Your task to perform on an android device: turn off smart reply in the gmail app Image 0: 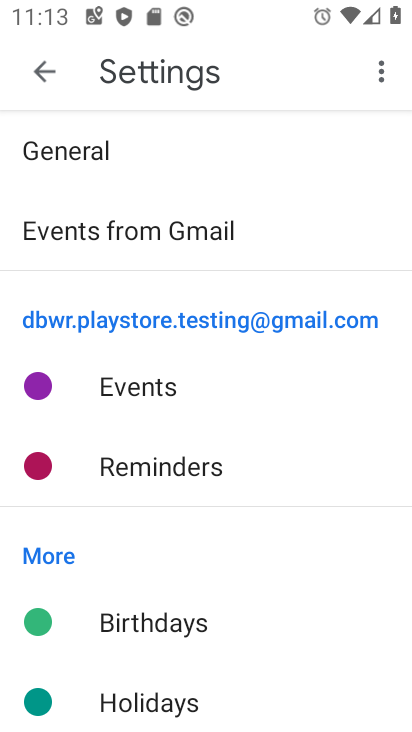
Step 0: press back button
Your task to perform on an android device: turn off smart reply in the gmail app Image 1: 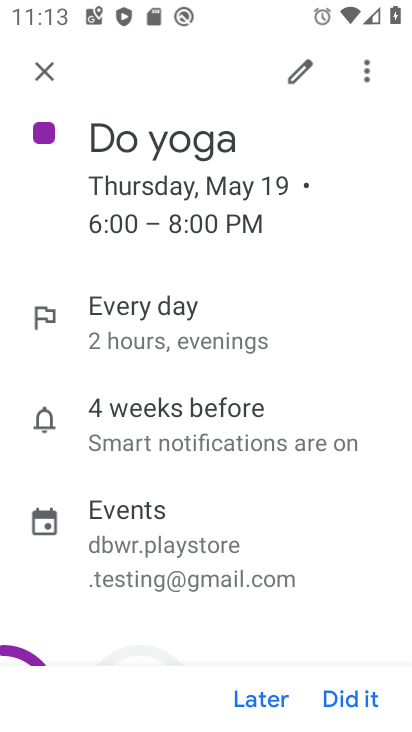
Step 1: click (243, 706)
Your task to perform on an android device: turn off smart reply in the gmail app Image 2: 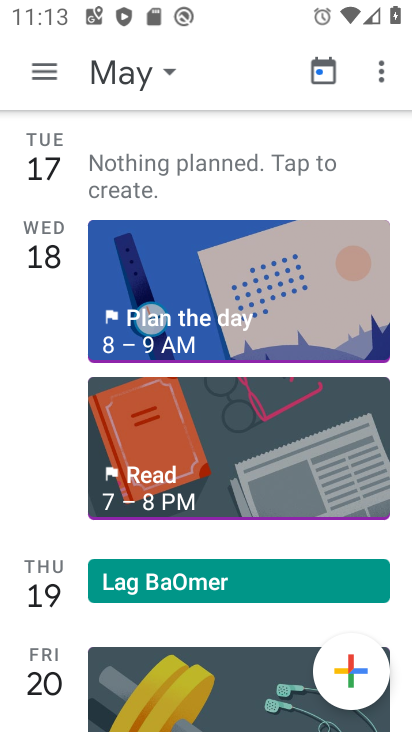
Step 2: press home button
Your task to perform on an android device: turn off smart reply in the gmail app Image 3: 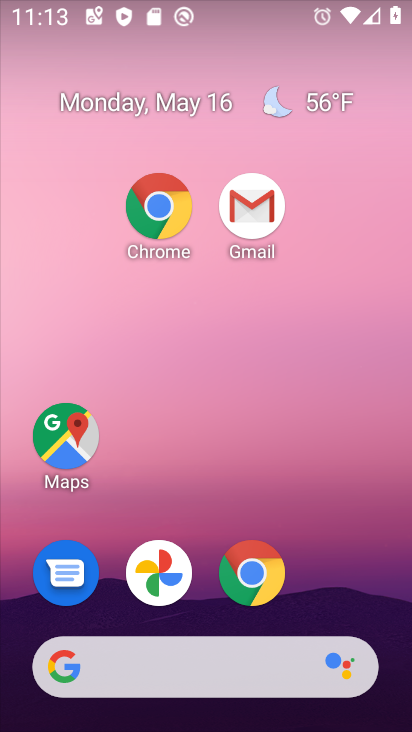
Step 3: drag from (219, 490) to (81, 91)
Your task to perform on an android device: turn off smart reply in the gmail app Image 4: 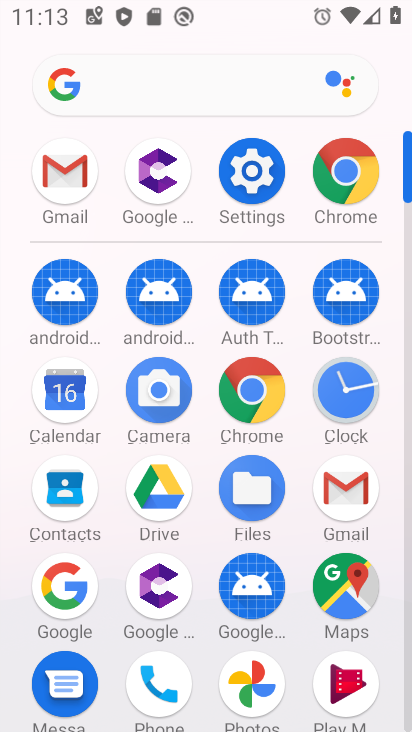
Step 4: click (352, 496)
Your task to perform on an android device: turn off smart reply in the gmail app Image 5: 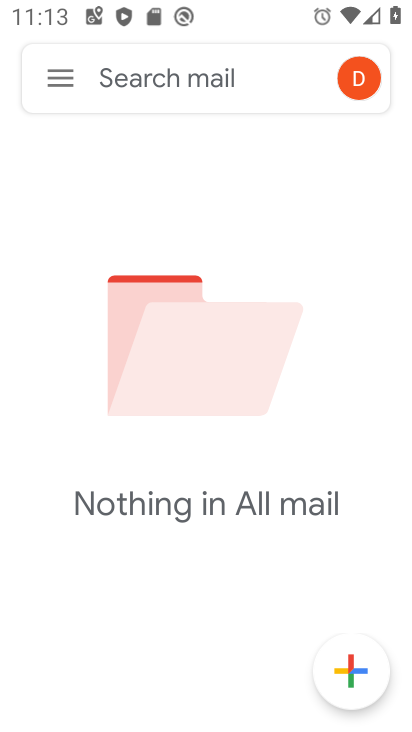
Step 5: click (71, 78)
Your task to perform on an android device: turn off smart reply in the gmail app Image 6: 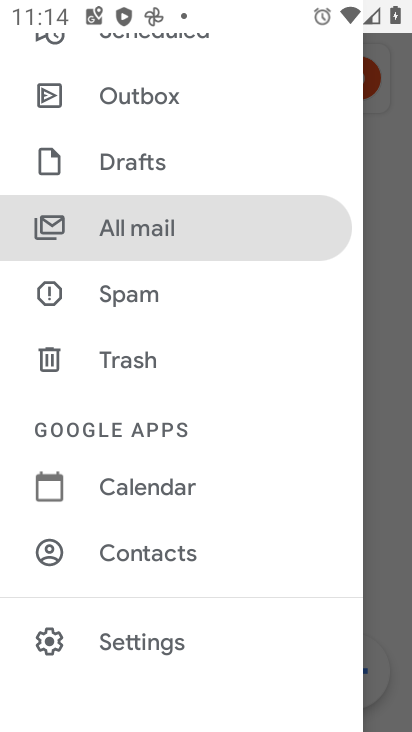
Step 6: click (144, 640)
Your task to perform on an android device: turn off smart reply in the gmail app Image 7: 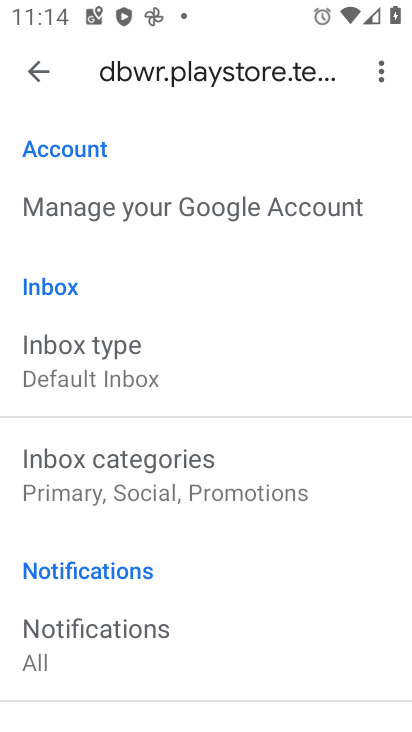
Step 7: drag from (164, 607) to (164, 166)
Your task to perform on an android device: turn off smart reply in the gmail app Image 8: 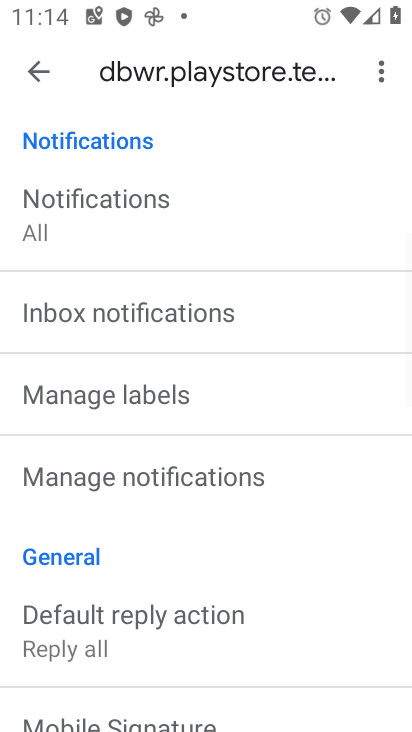
Step 8: drag from (194, 397) to (227, 24)
Your task to perform on an android device: turn off smart reply in the gmail app Image 9: 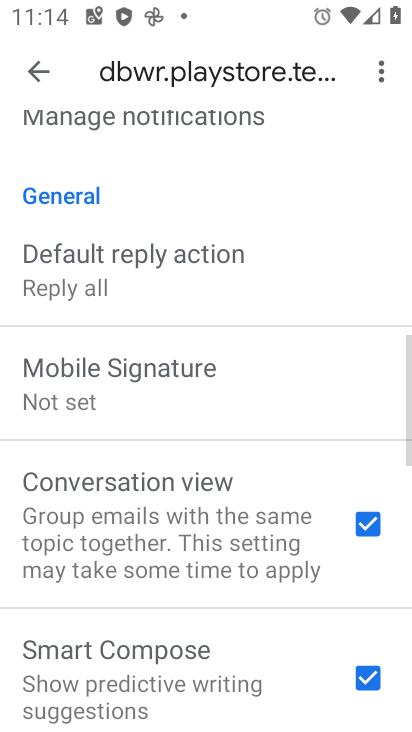
Step 9: drag from (196, 466) to (244, 221)
Your task to perform on an android device: turn off smart reply in the gmail app Image 10: 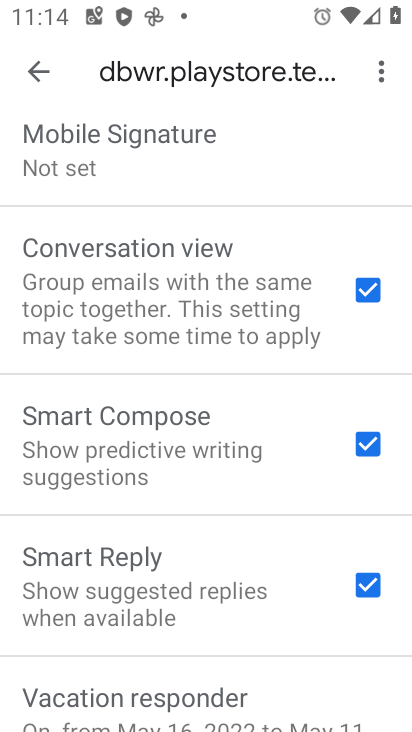
Step 10: drag from (167, 617) to (190, 287)
Your task to perform on an android device: turn off smart reply in the gmail app Image 11: 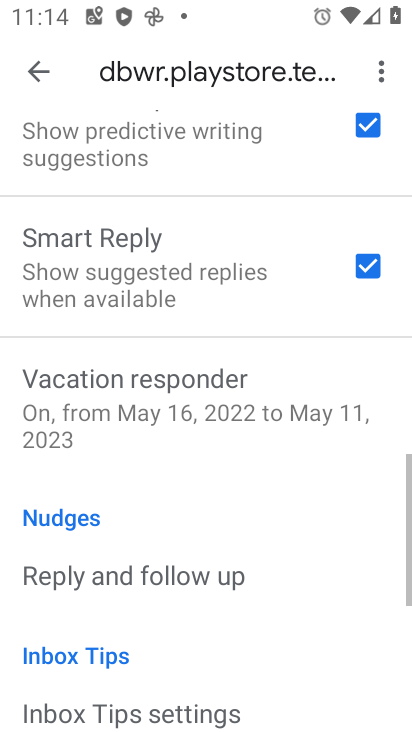
Step 11: drag from (149, 520) to (182, 177)
Your task to perform on an android device: turn off smart reply in the gmail app Image 12: 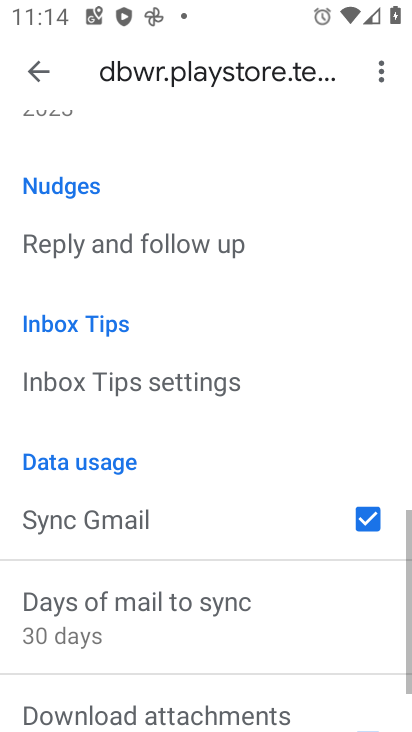
Step 12: drag from (206, 597) to (266, 121)
Your task to perform on an android device: turn off smart reply in the gmail app Image 13: 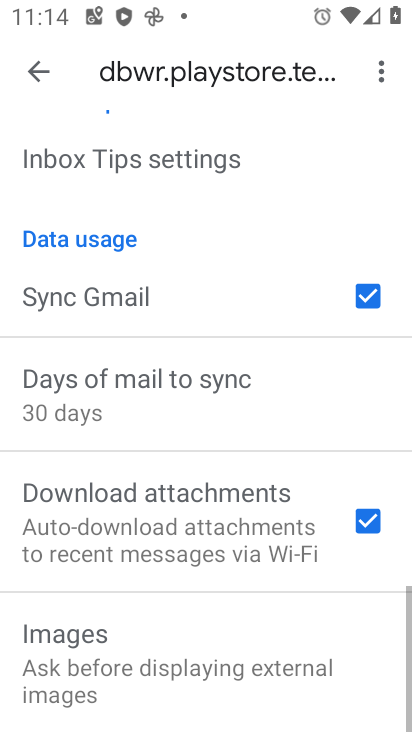
Step 13: drag from (309, 509) to (323, 122)
Your task to perform on an android device: turn off smart reply in the gmail app Image 14: 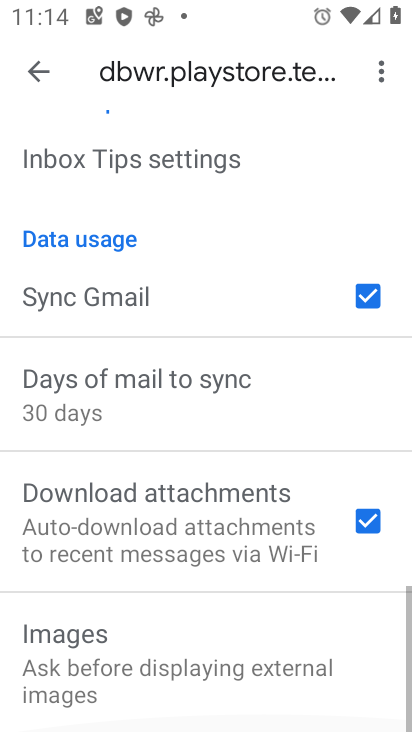
Step 14: drag from (251, 502) to (262, 21)
Your task to perform on an android device: turn off smart reply in the gmail app Image 15: 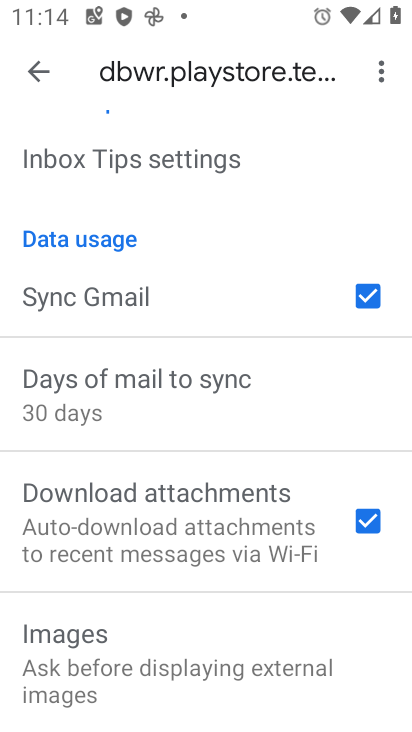
Step 15: drag from (192, 564) to (233, 109)
Your task to perform on an android device: turn off smart reply in the gmail app Image 16: 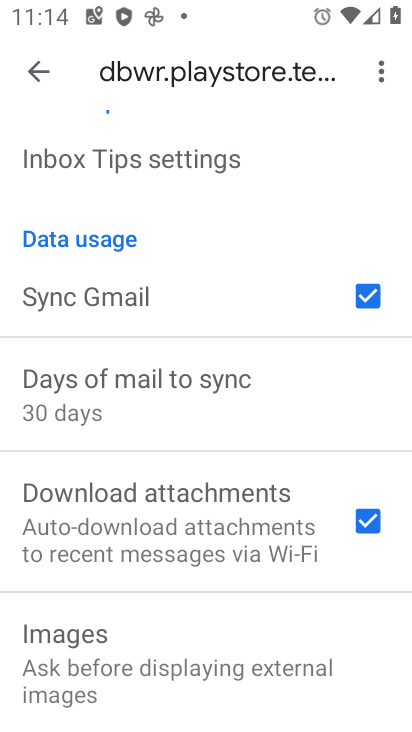
Step 16: drag from (212, 487) to (270, 52)
Your task to perform on an android device: turn off smart reply in the gmail app Image 17: 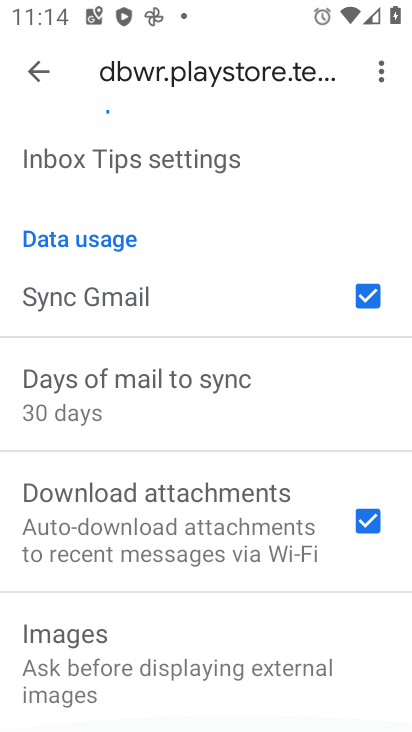
Step 17: drag from (268, 505) to (206, 3)
Your task to perform on an android device: turn off smart reply in the gmail app Image 18: 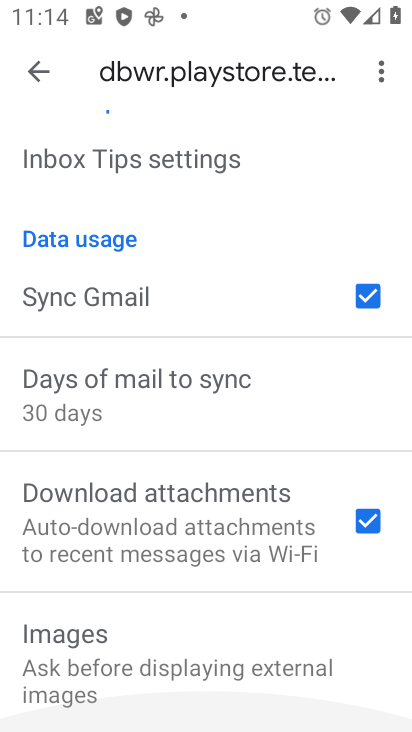
Step 18: drag from (187, 568) to (143, 42)
Your task to perform on an android device: turn off smart reply in the gmail app Image 19: 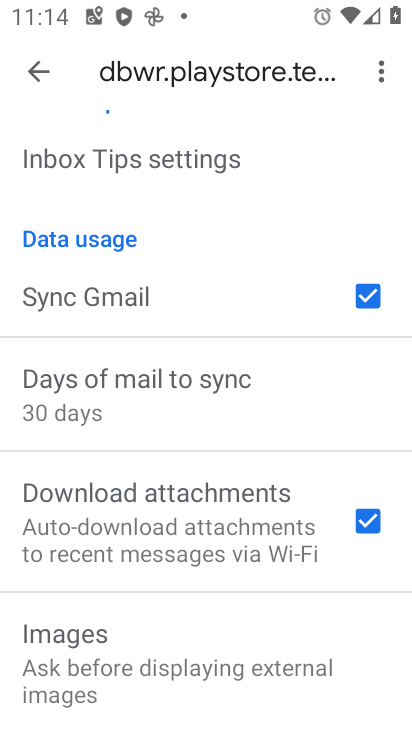
Step 19: drag from (132, 257) to (96, 529)
Your task to perform on an android device: turn off smart reply in the gmail app Image 20: 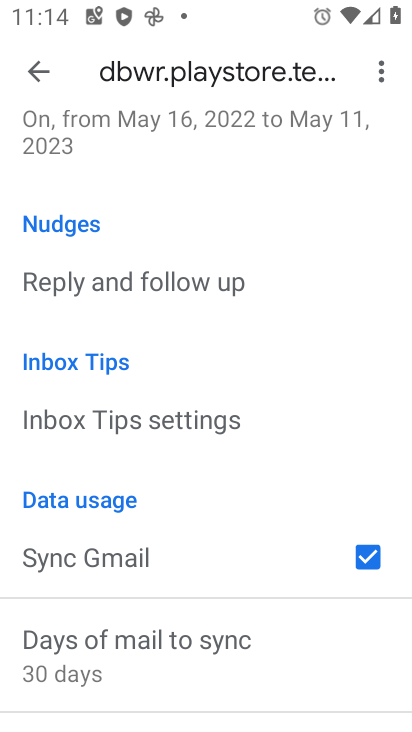
Step 20: drag from (179, 239) to (152, 600)
Your task to perform on an android device: turn off smart reply in the gmail app Image 21: 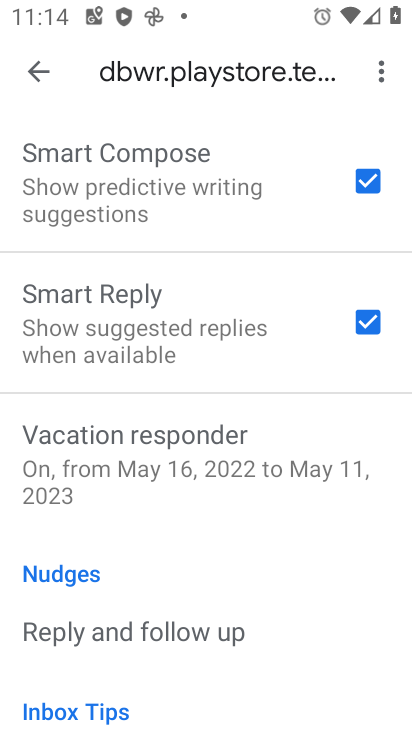
Step 21: click (368, 313)
Your task to perform on an android device: turn off smart reply in the gmail app Image 22: 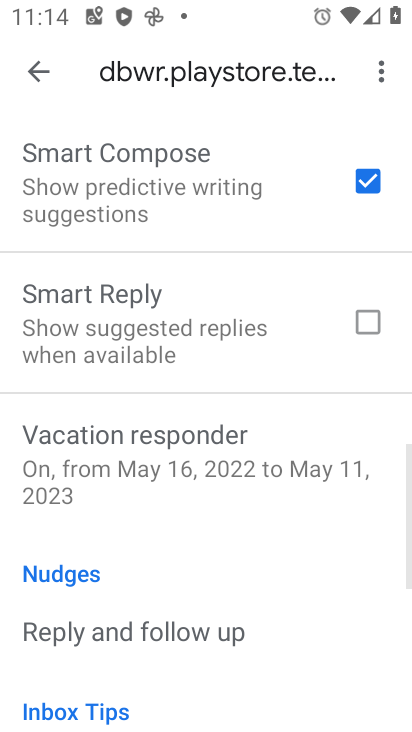
Step 22: task complete